Your task to perform on an android device: change notifications settings Image 0: 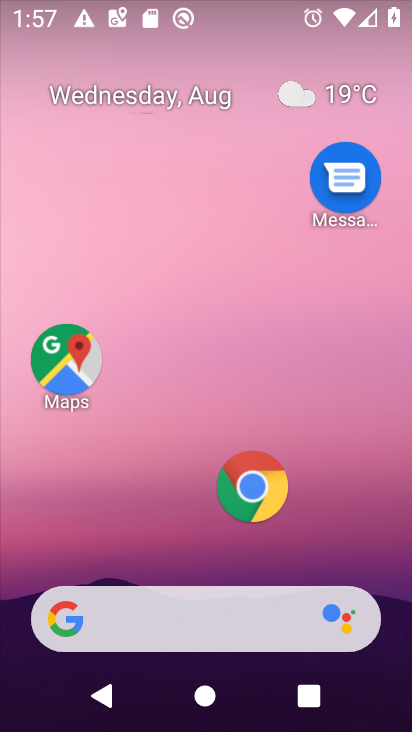
Step 0: drag from (199, 485) to (206, 87)
Your task to perform on an android device: change notifications settings Image 1: 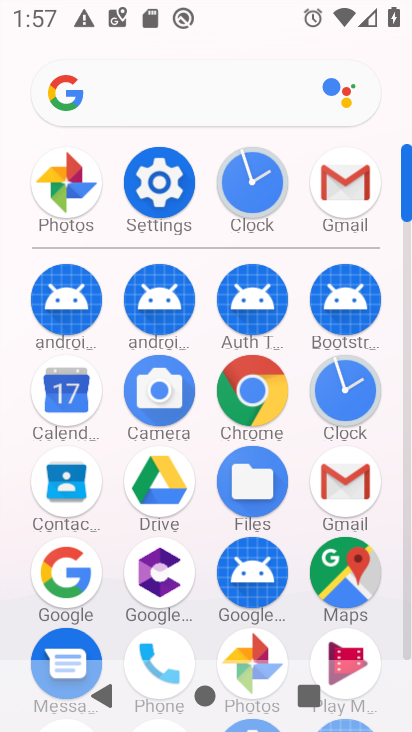
Step 1: click (162, 182)
Your task to perform on an android device: change notifications settings Image 2: 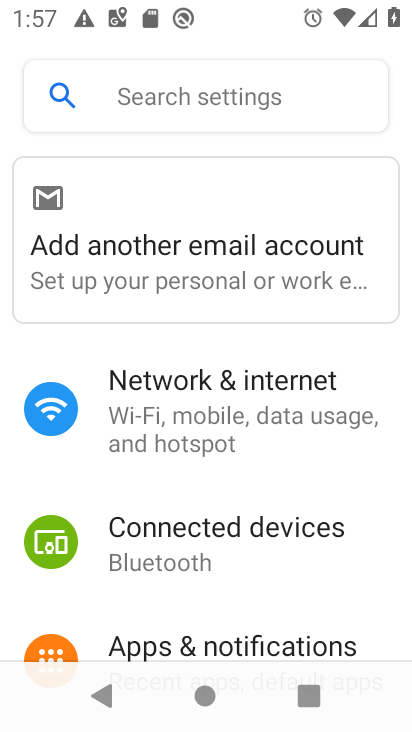
Step 2: click (229, 640)
Your task to perform on an android device: change notifications settings Image 3: 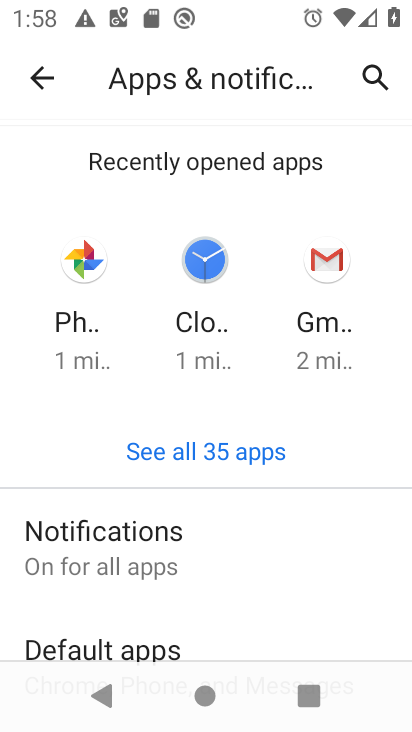
Step 3: click (120, 527)
Your task to perform on an android device: change notifications settings Image 4: 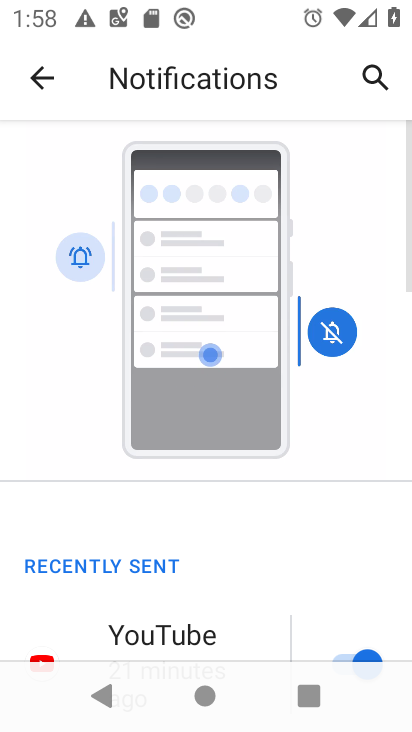
Step 4: drag from (126, 628) to (282, 66)
Your task to perform on an android device: change notifications settings Image 5: 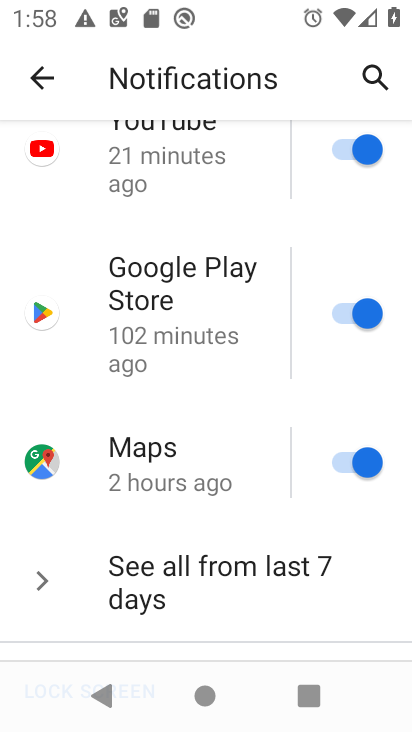
Step 5: drag from (203, 570) to (293, 48)
Your task to perform on an android device: change notifications settings Image 6: 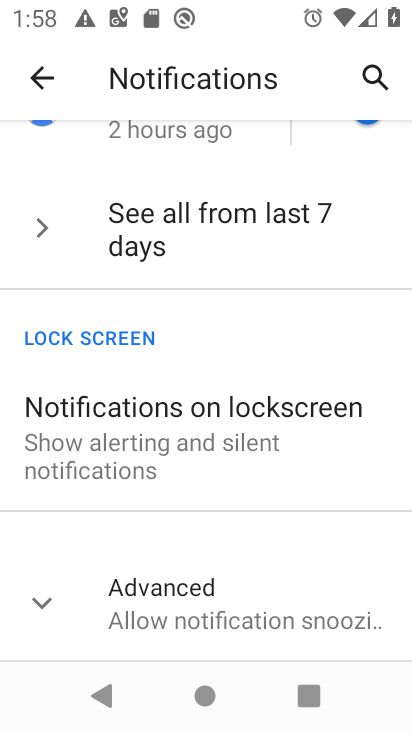
Step 6: click (206, 613)
Your task to perform on an android device: change notifications settings Image 7: 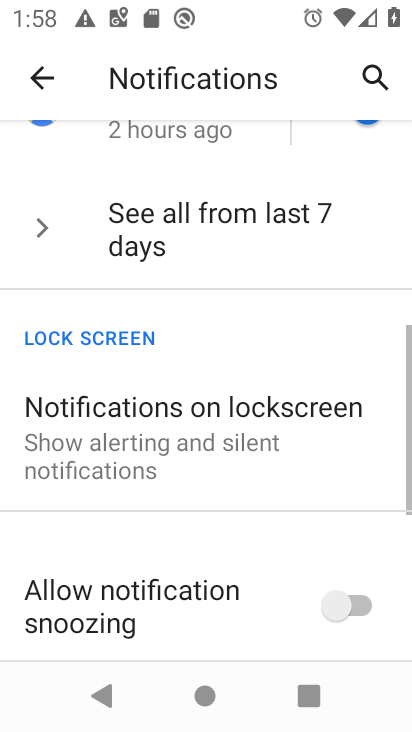
Step 7: drag from (201, 612) to (281, 311)
Your task to perform on an android device: change notifications settings Image 8: 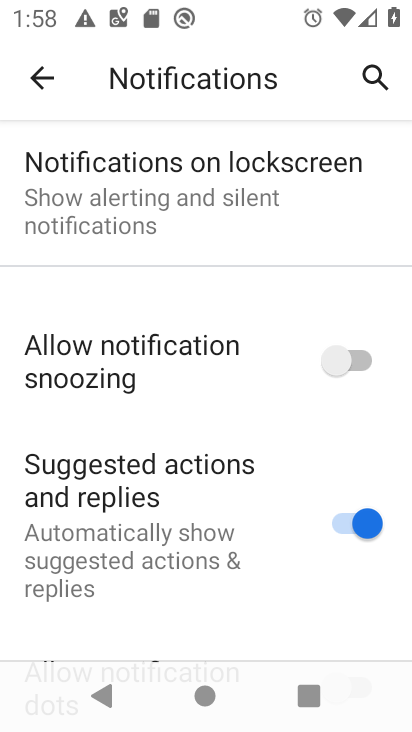
Step 8: click (357, 356)
Your task to perform on an android device: change notifications settings Image 9: 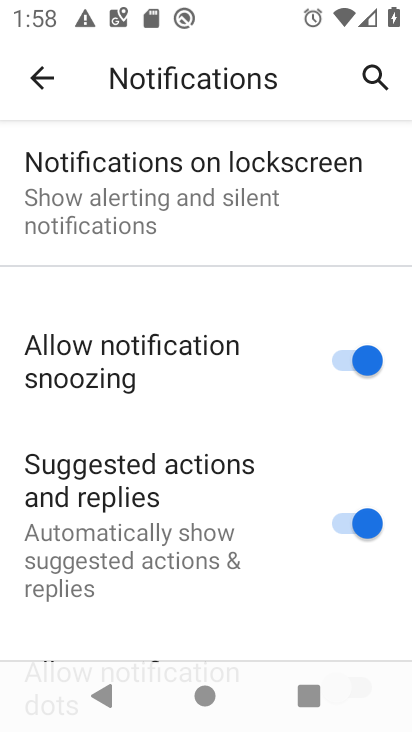
Step 9: task complete